Your task to perform on an android device: See recent photos Image 0: 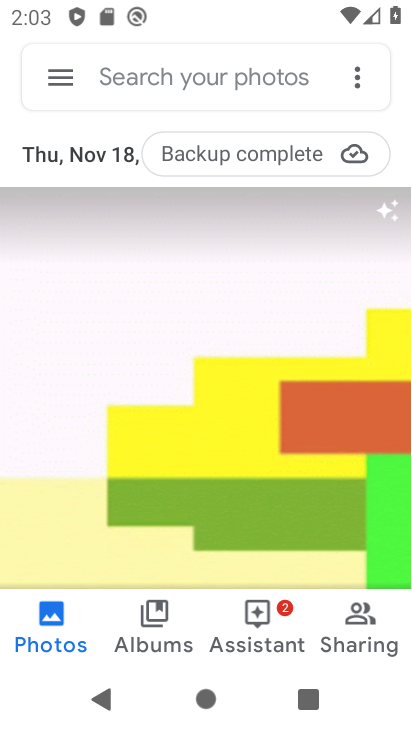
Step 0: press home button
Your task to perform on an android device: See recent photos Image 1: 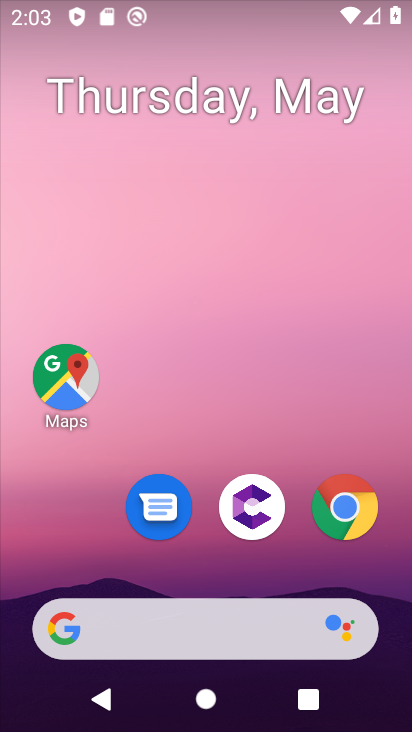
Step 1: drag from (326, 581) to (280, 220)
Your task to perform on an android device: See recent photos Image 2: 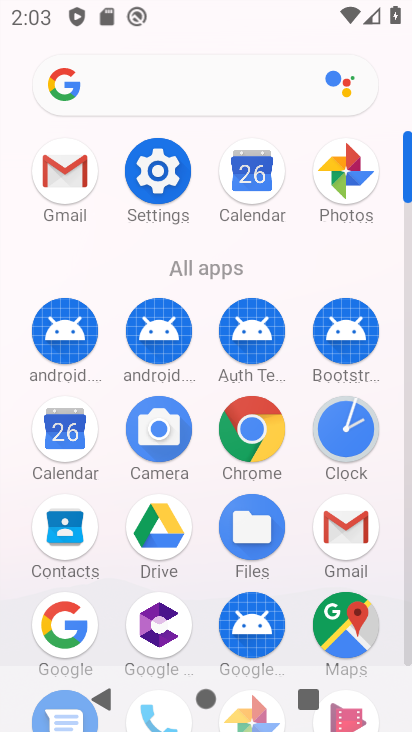
Step 2: click (354, 175)
Your task to perform on an android device: See recent photos Image 3: 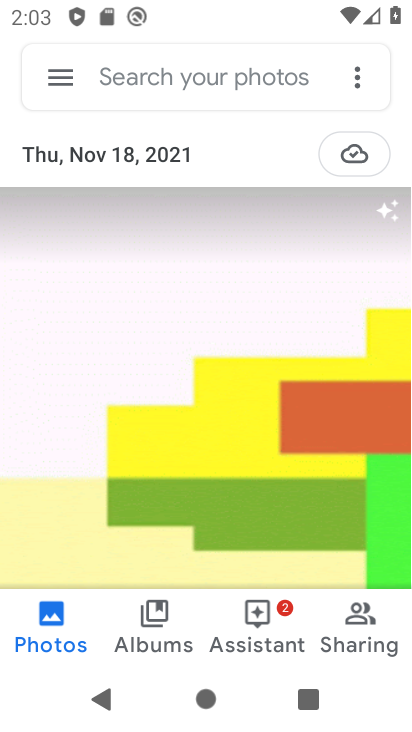
Step 3: click (43, 617)
Your task to perform on an android device: See recent photos Image 4: 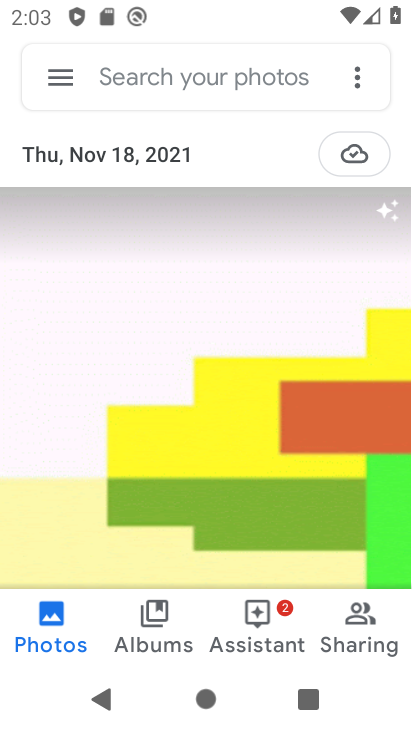
Step 4: task complete